Your task to perform on an android device: What's the weather going to be tomorrow? Image 0: 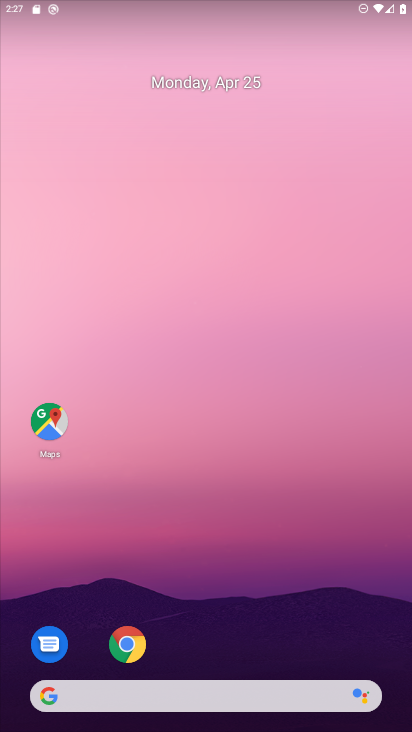
Step 0: drag from (235, 620) to (211, 234)
Your task to perform on an android device: What's the weather going to be tomorrow? Image 1: 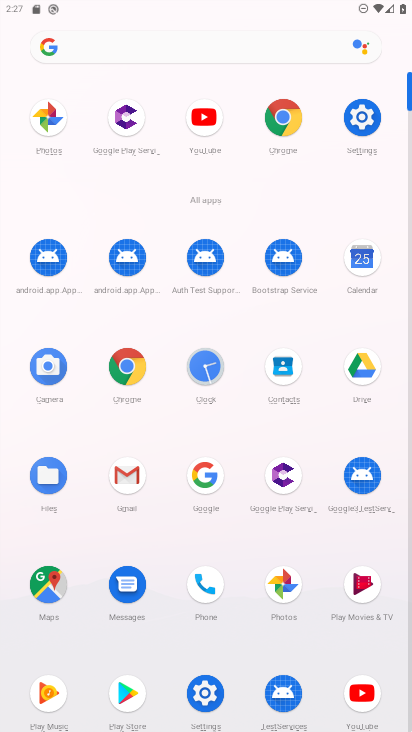
Step 1: click (288, 136)
Your task to perform on an android device: What's the weather going to be tomorrow? Image 2: 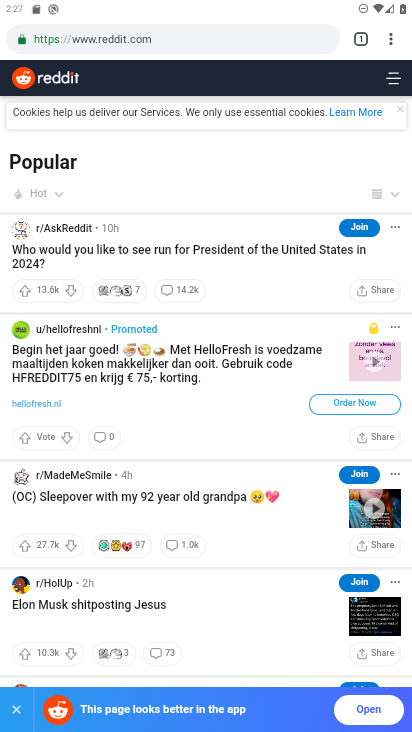
Step 2: click (219, 35)
Your task to perform on an android device: What's the weather going to be tomorrow? Image 3: 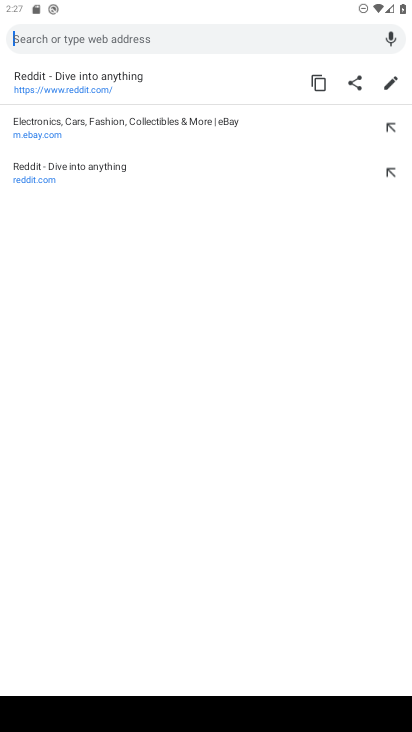
Step 3: type "What's the weather going to be tomorrow?"
Your task to perform on an android device: What's the weather going to be tomorrow? Image 4: 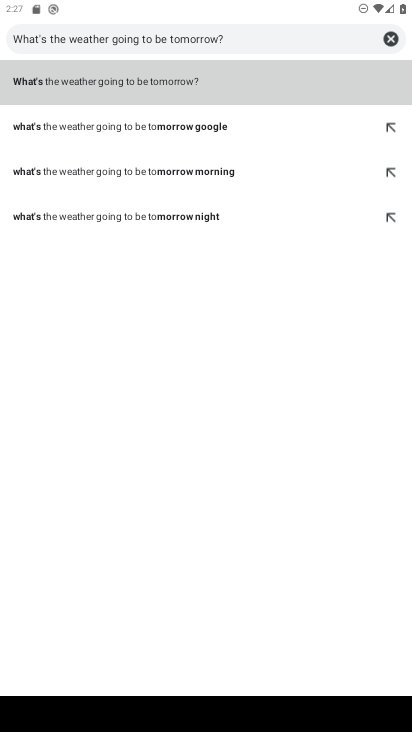
Step 4: click (113, 80)
Your task to perform on an android device: What's the weather going to be tomorrow? Image 5: 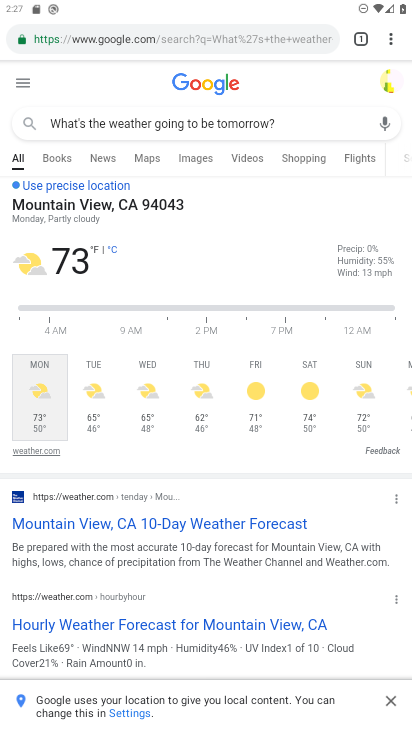
Step 5: task complete